Your task to perform on an android device: turn on priority inbox in the gmail app Image 0: 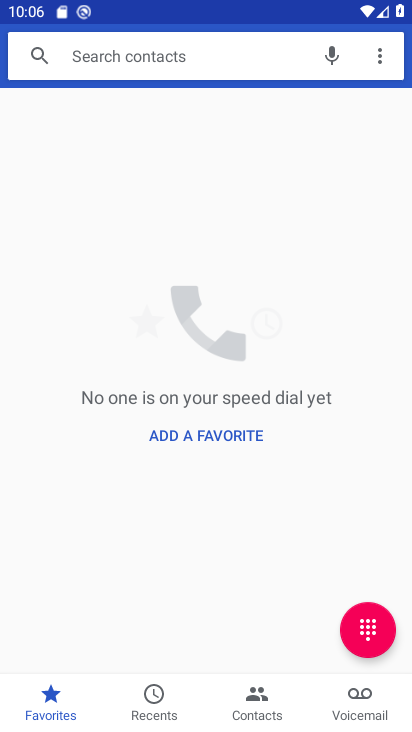
Step 0: press home button
Your task to perform on an android device: turn on priority inbox in the gmail app Image 1: 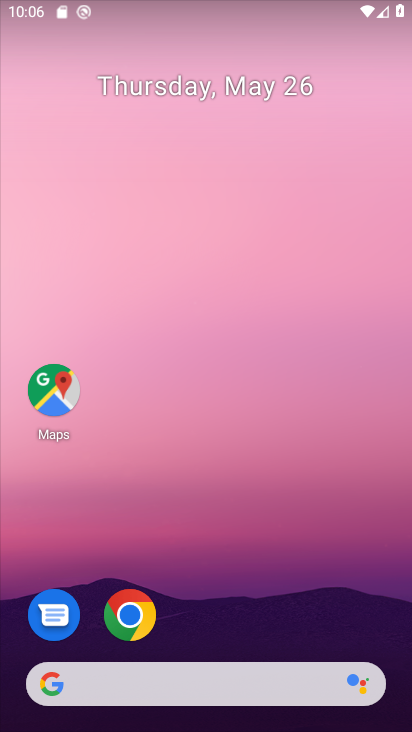
Step 1: drag from (328, 584) to (351, 3)
Your task to perform on an android device: turn on priority inbox in the gmail app Image 2: 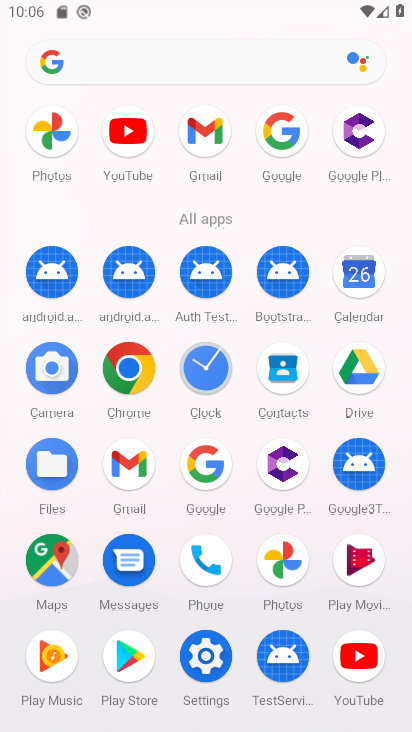
Step 2: click (206, 141)
Your task to perform on an android device: turn on priority inbox in the gmail app Image 3: 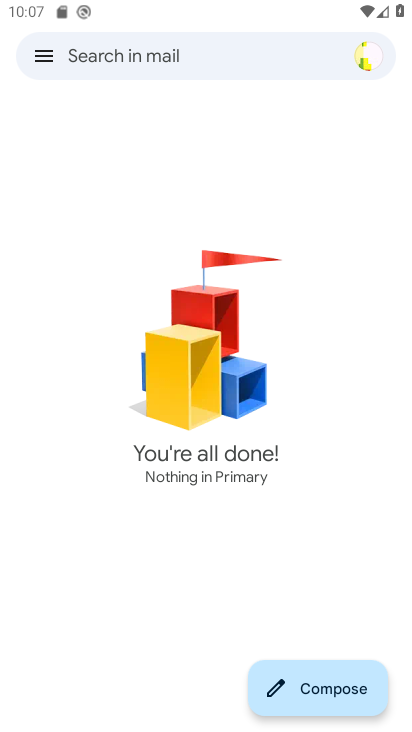
Step 3: click (38, 51)
Your task to perform on an android device: turn on priority inbox in the gmail app Image 4: 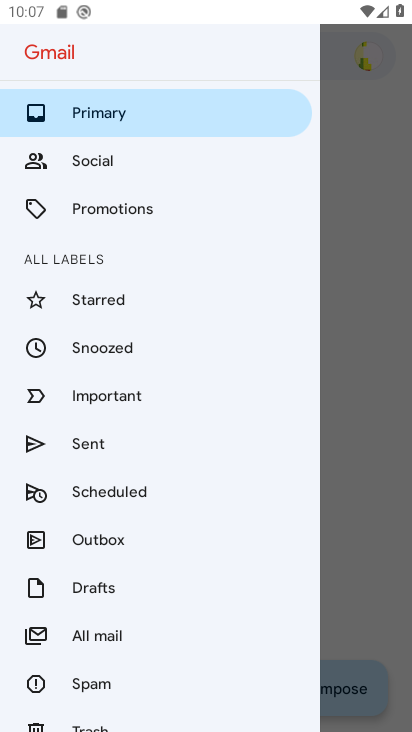
Step 4: drag from (147, 671) to (167, 192)
Your task to perform on an android device: turn on priority inbox in the gmail app Image 5: 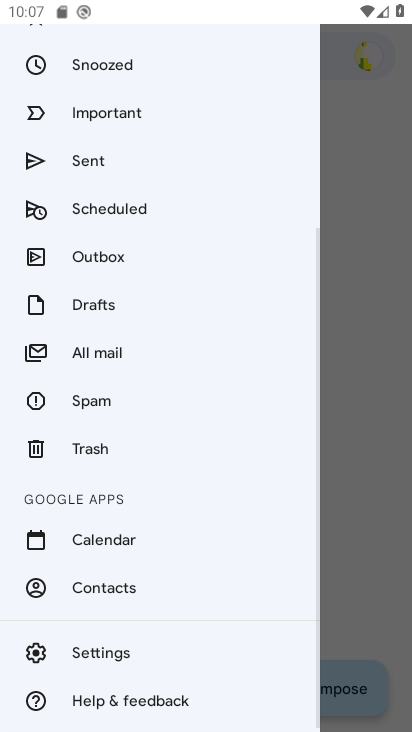
Step 5: click (129, 653)
Your task to perform on an android device: turn on priority inbox in the gmail app Image 6: 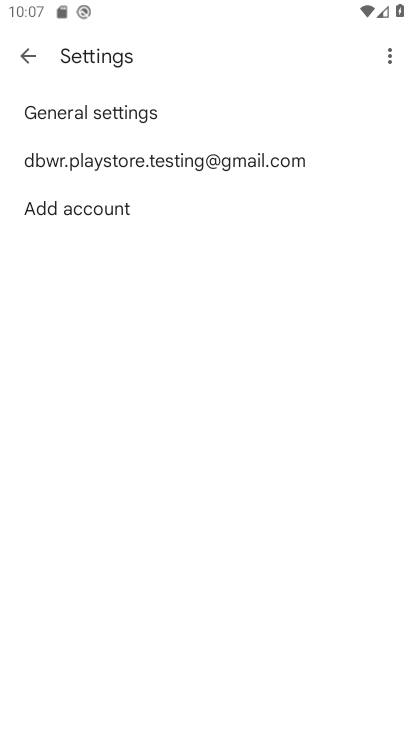
Step 6: click (168, 152)
Your task to perform on an android device: turn on priority inbox in the gmail app Image 7: 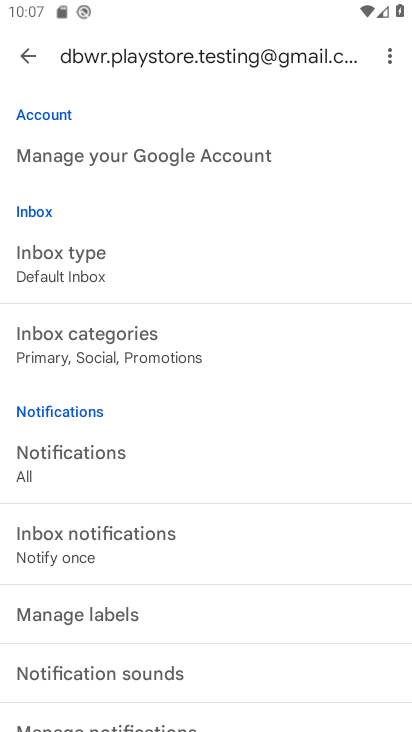
Step 7: click (101, 257)
Your task to perform on an android device: turn on priority inbox in the gmail app Image 8: 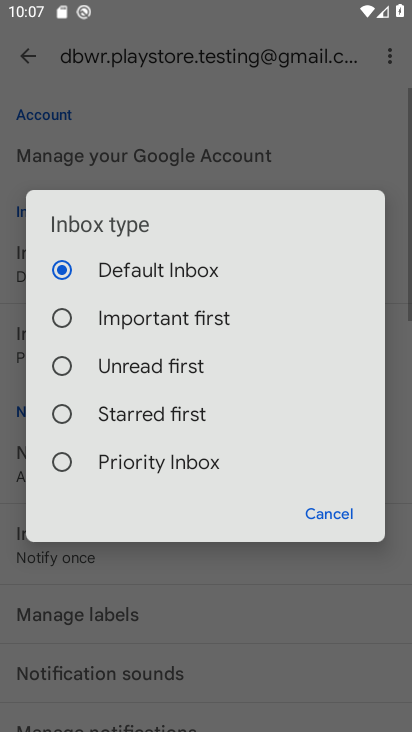
Step 8: click (112, 456)
Your task to perform on an android device: turn on priority inbox in the gmail app Image 9: 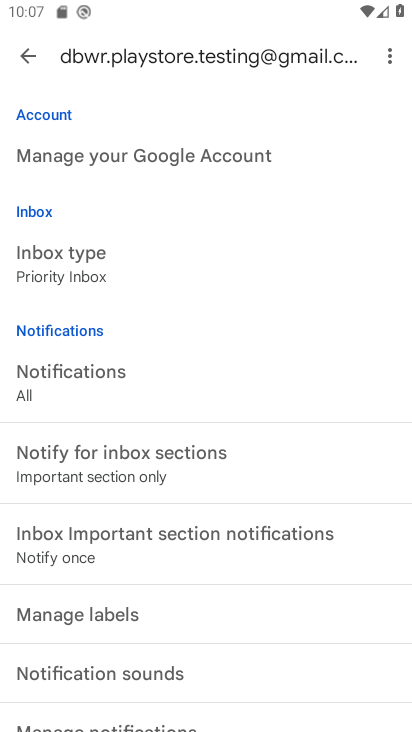
Step 9: task complete